Your task to perform on an android device: toggle airplane mode Image 0: 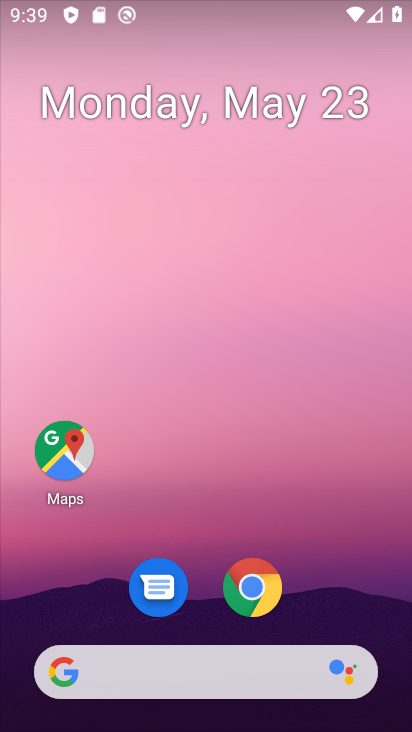
Step 0: drag from (361, 611) to (410, 0)
Your task to perform on an android device: toggle airplane mode Image 1: 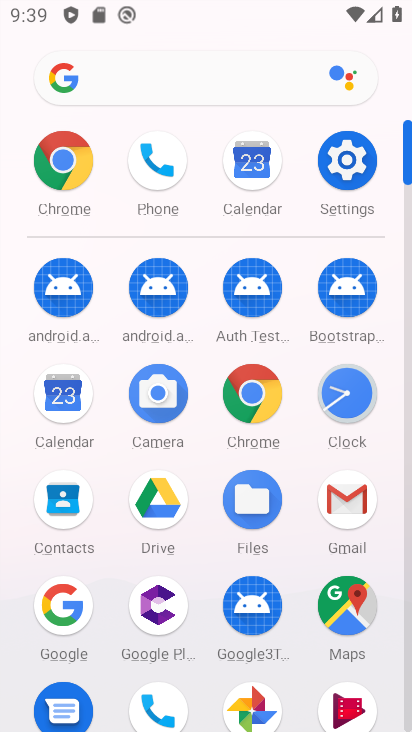
Step 1: click (343, 169)
Your task to perform on an android device: toggle airplane mode Image 2: 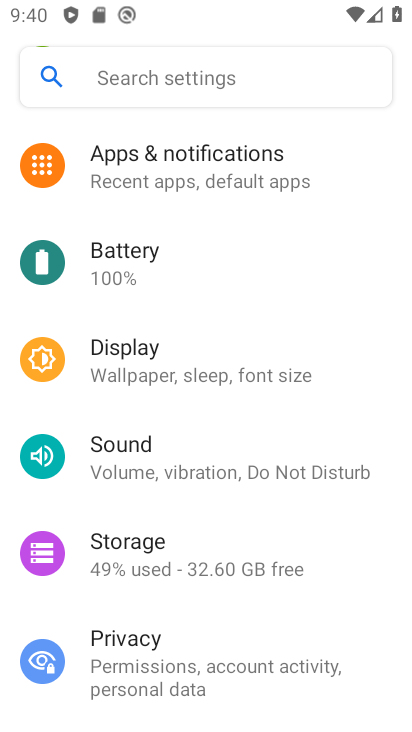
Step 2: drag from (189, 257) to (178, 573)
Your task to perform on an android device: toggle airplane mode Image 3: 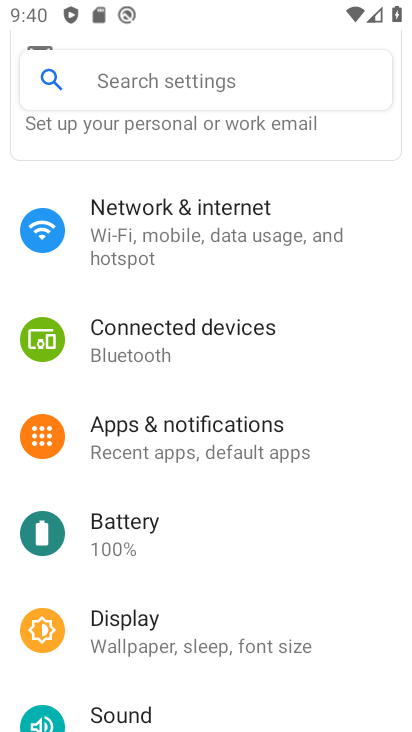
Step 3: drag from (250, 293) to (230, 570)
Your task to perform on an android device: toggle airplane mode Image 4: 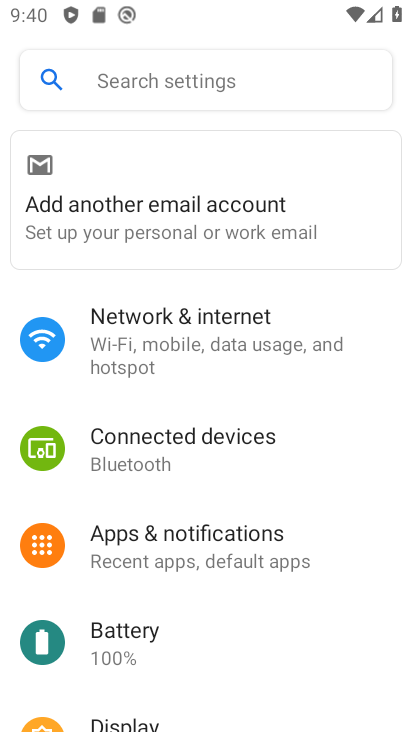
Step 4: drag from (218, 549) to (235, 319)
Your task to perform on an android device: toggle airplane mode Image 5: 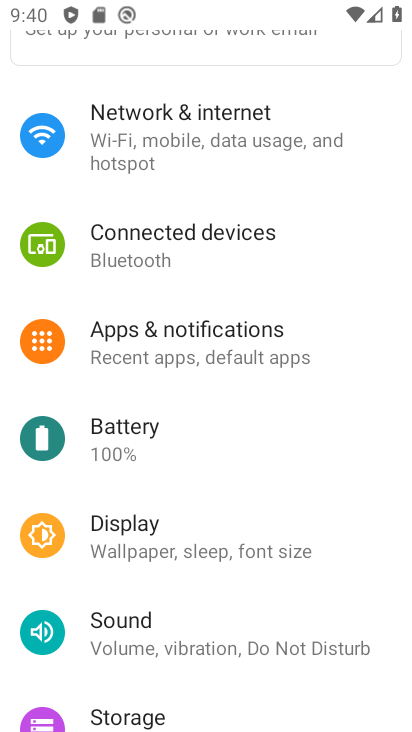
Step 5: drag from (232, 319) to (248, 602)
Your task to perform on an android device: toggle airplane mode Image 6: 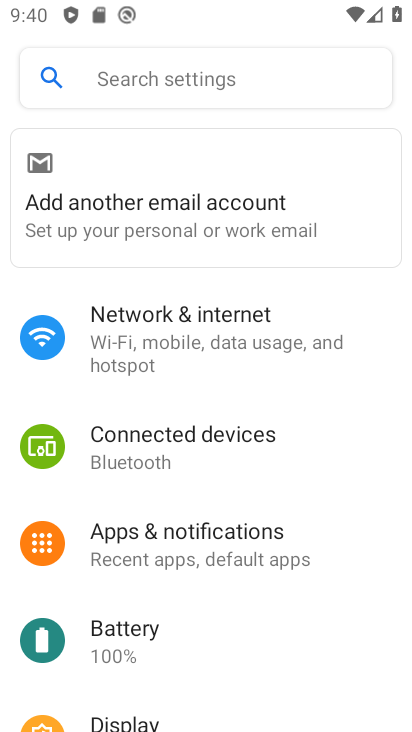
Step 6: click (213, 340)
Your task to perform on an android device: toggle airplane mode Image 7: 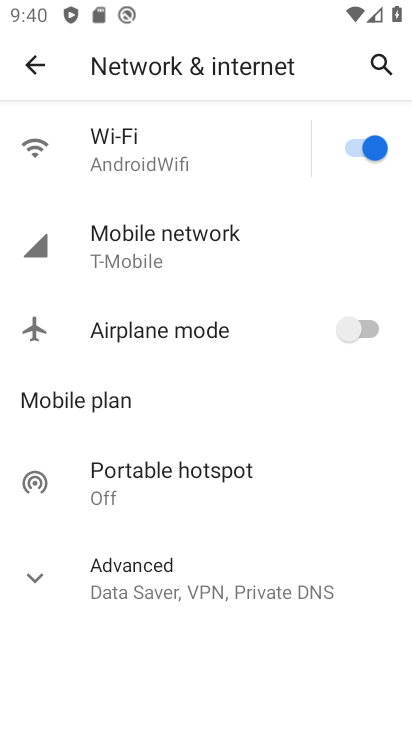
Step 7: click (360, 327)
Your task to perform on an android device: toggle airplane mode Image 8: 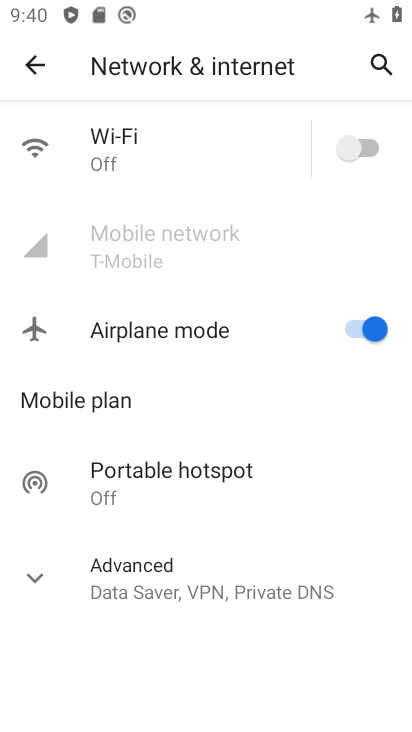
Step 8: task complete